Your task to perform on an android device: Open settings on Google Maps Image 0: 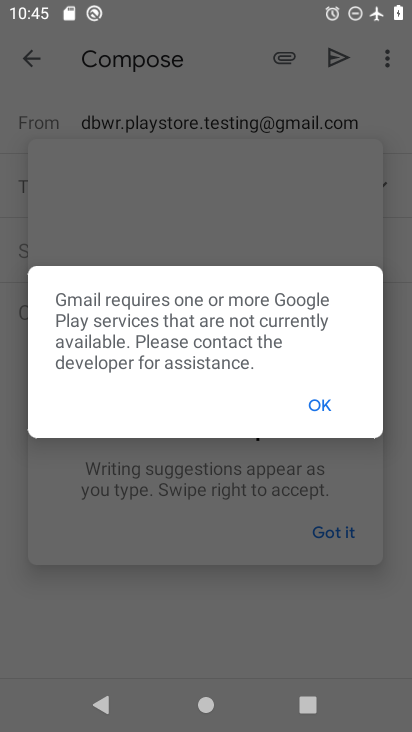
Step 0: press home button
Your task to perform on an android device: Open settings on Google Maps Image 1: 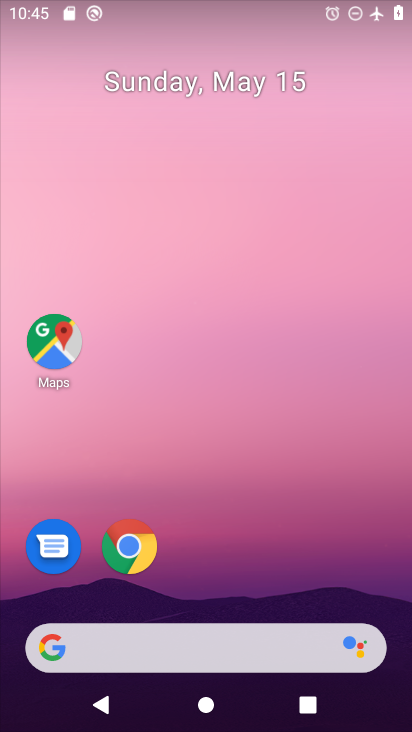
Step 1: click (52, 337)
Your task to perform on an android device: Open settings on Google Maps Image 2: 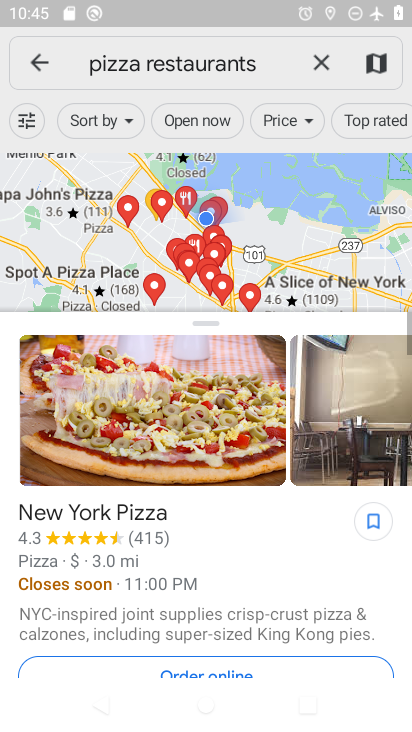
Step 2: click (51, 61)
Your task to perform on an android device: Open settings on Google Maps Image 3: 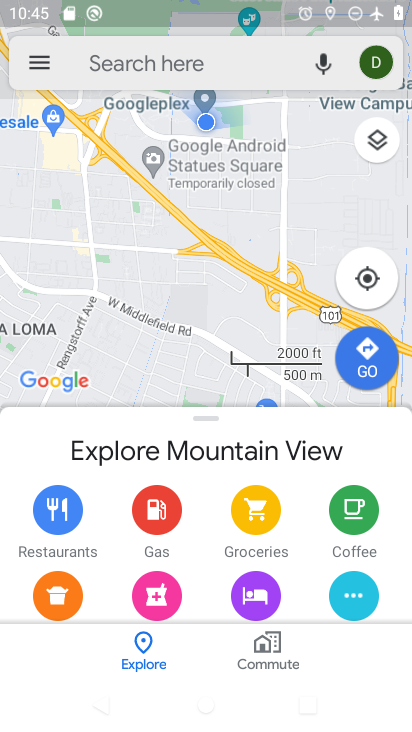
Step 3: click (51, 61)
Your task to perform on an android device: Open settings on Google Maps Image 4: 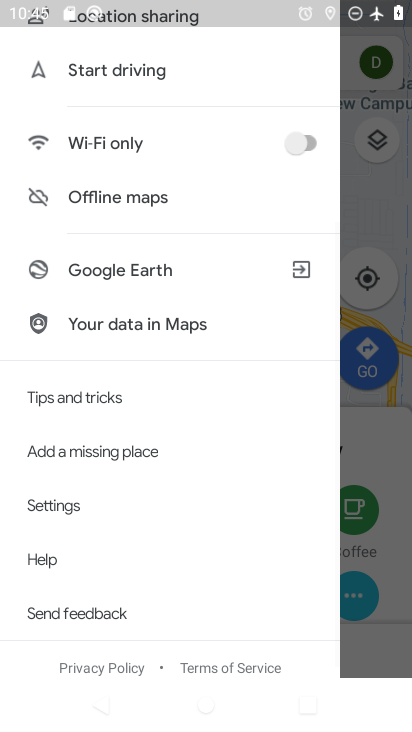
Step 4: click (62, 507)
Your task to perform on an android device: Open settings on Google Maps Image 5: 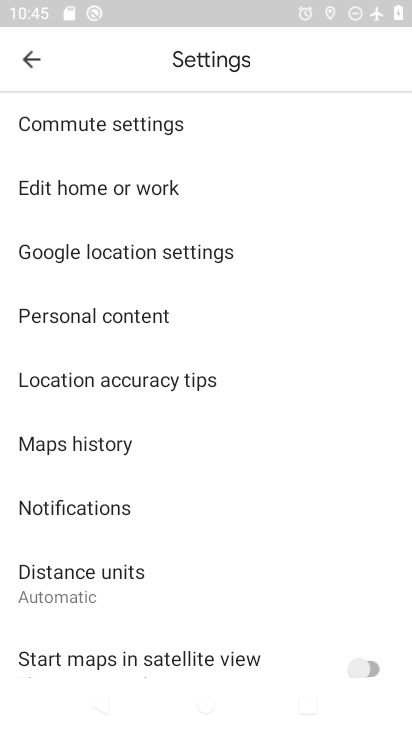
Step 5: task complete